Your task to perform on an android device: Search for vegetarian restaurants on Maps Image 0: 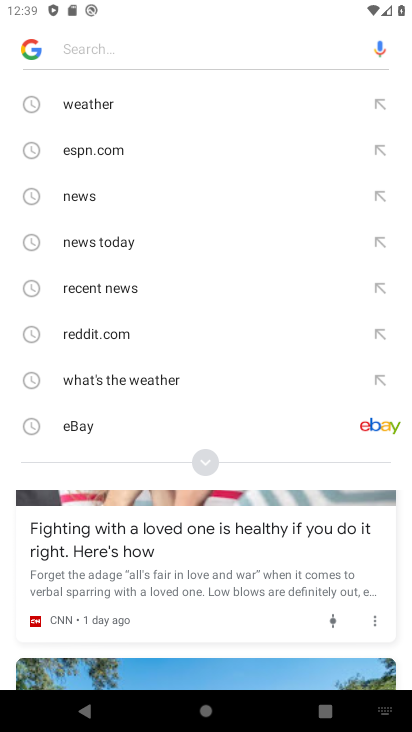
Step 0: press home button
Your task to perform on an android device: Search for vegetarian restaurants on Maps Image 1: 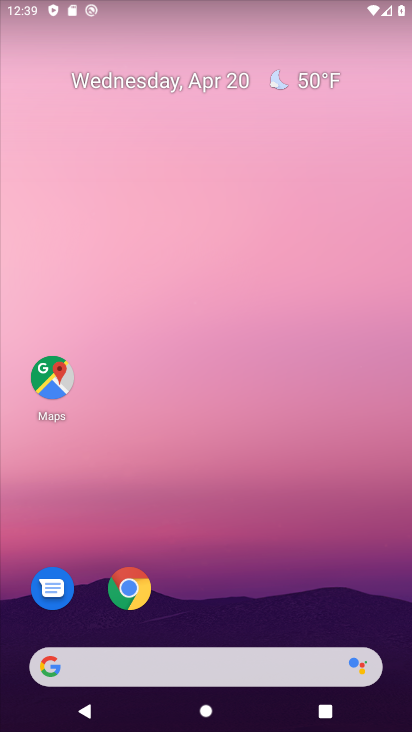
Step 1: click (56, 378)
Your task to perform on an android device: Search for vegetarian restaurants on Maps Image 2: 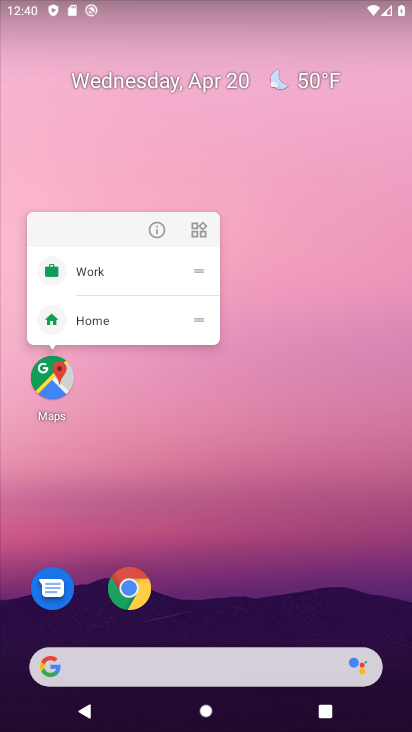
Step 2: click (49, 374)
Your task to perform on an android device: Search for vegetarian restaurants on Maps Image 3: 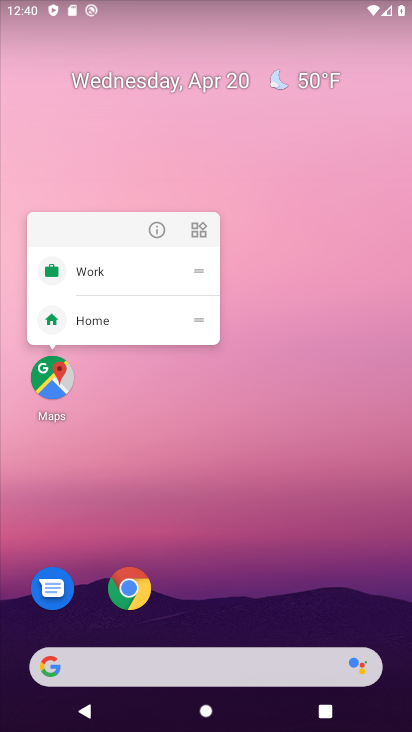
Step 3: drag from (186, 653) to (230, 62)
Your task to perform on an android device: Search for vegetarian restaurants on Maps Image 4: 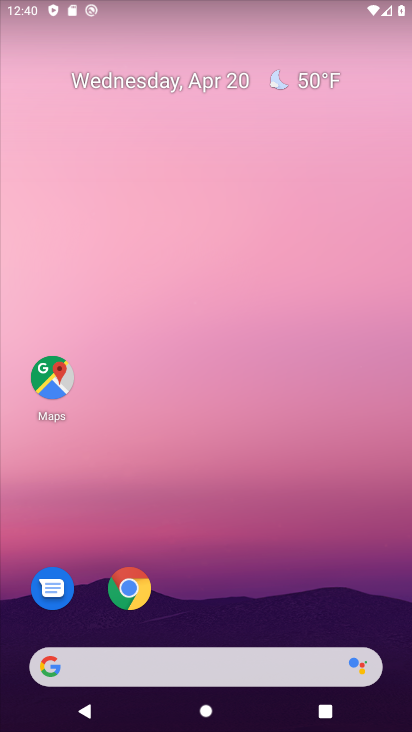
Step 4: drag from (162, 636) to (215, 242)
Your task to perform on an android device: Search for vegetarian restaurants on Maps Image 5: 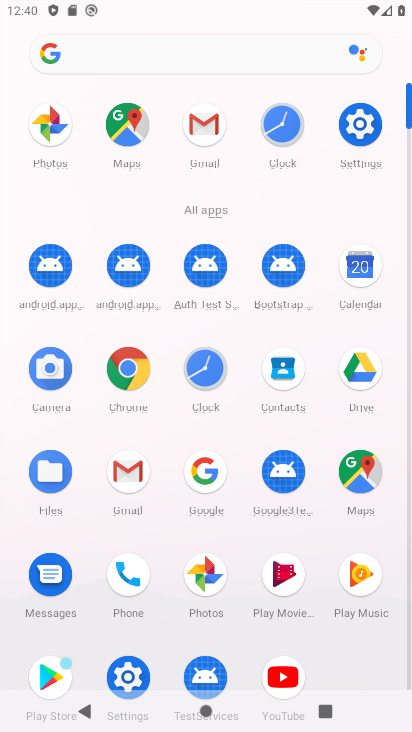
Step 5: click (357, 475)
Your task to perform on an android device: Search for vegetarian restaurants on Maps Image 6: 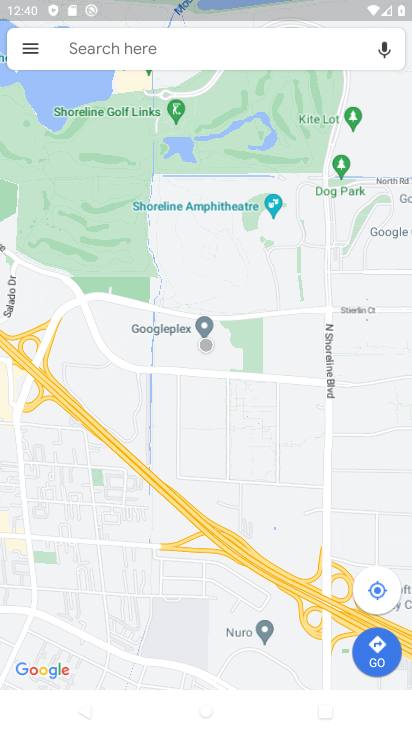
Step 6: click (104, 51)
Your task to perform on an android device: Search for vegetarian restaurants on Maps Image 7: 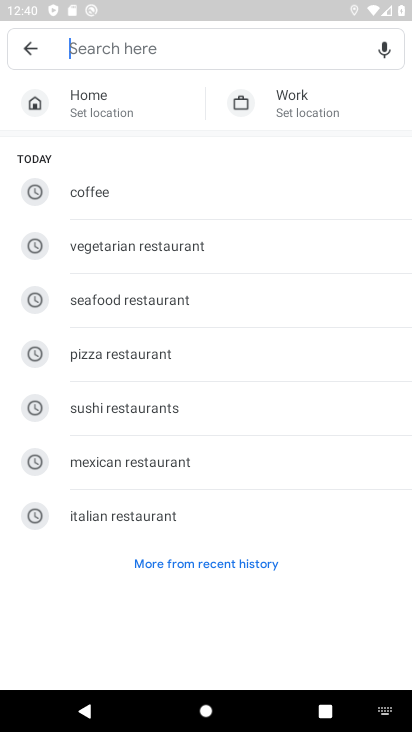
Step 7: click (107, 253)
Your task to perform on an android device: Search for vegetarian restaurants on Maps Image 8: 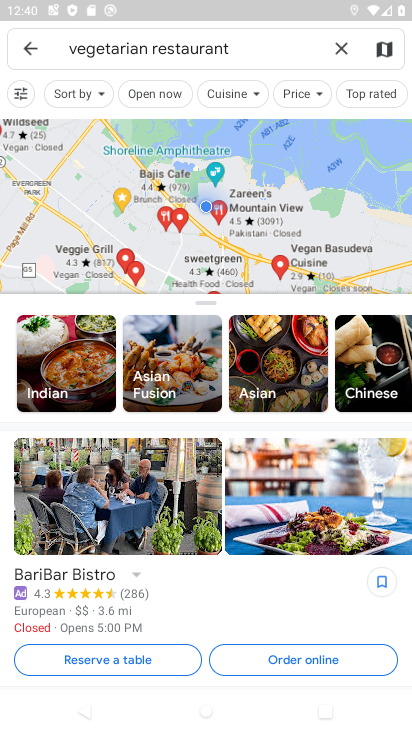
Step 8: task complete